Your task to perform on an android device: remove spam from my inbox in the gmail app Image 0: 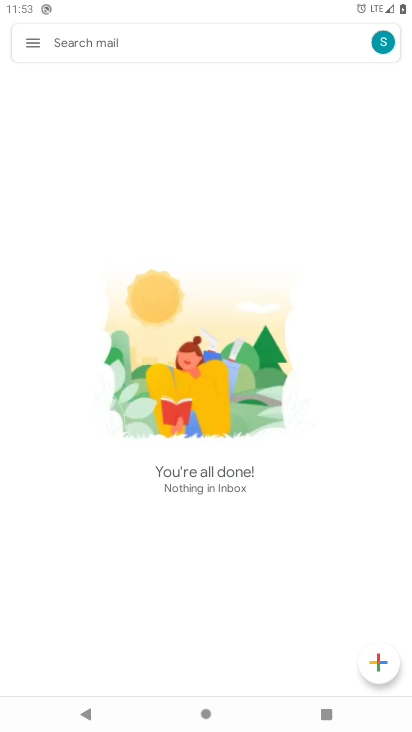
Step 0: click (32, 48)
Your task to perform on an android device: remove spam from my inbox in the gmail app Image 1: 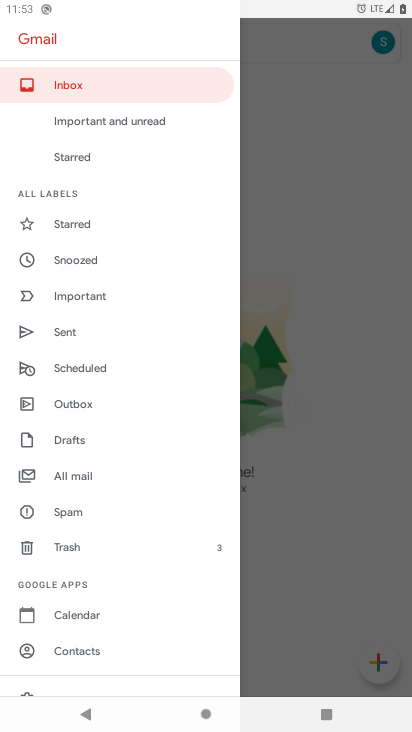
Step 1: click (76, 520)
Your task to perform on an android device: remove spam from my inbox in the gmail app Image 2: 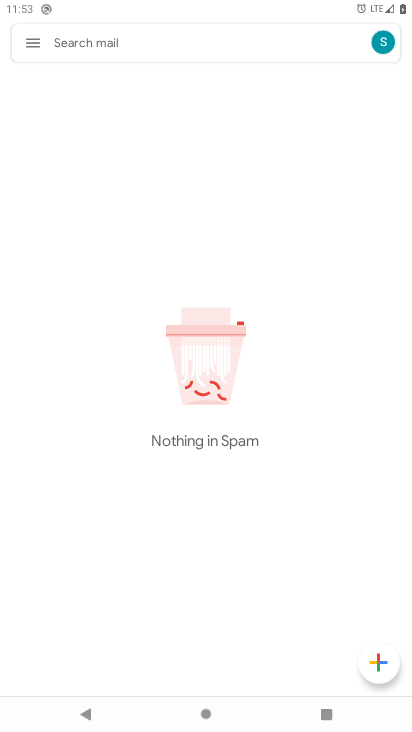
Step 2: click (11, 35)
Your task to perform on an android device: remove spam from my inbox in the gmail app Image 3: 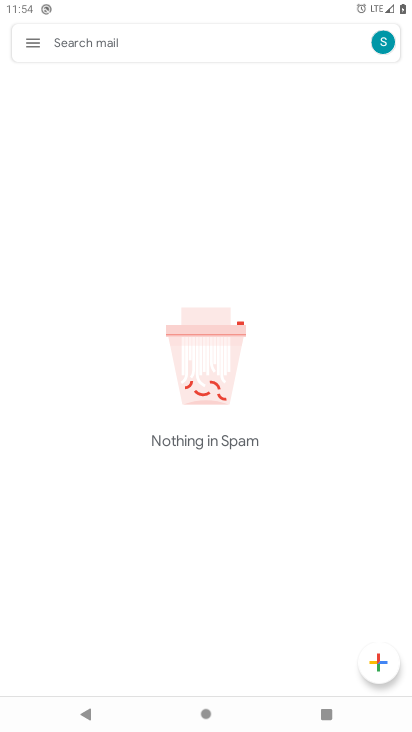
Step 3: click (30, 54)
Your task to perform on an android device: remove spam from my inbox in the gmail app Image 4: 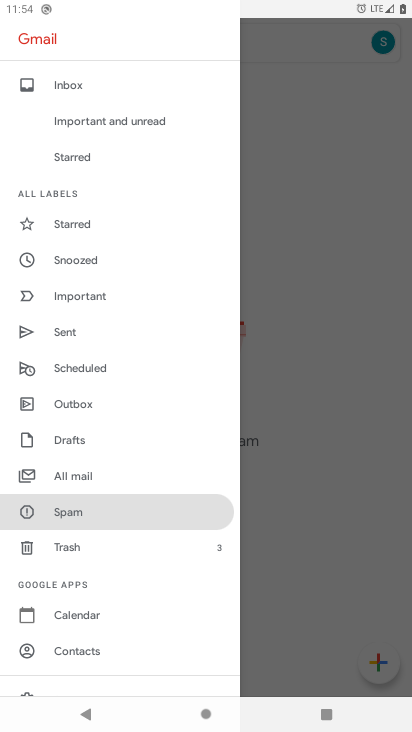
Step 4: click (93, 500)
Your task to perform on an android device: remove spam from my inbox in the gmail app Image 5: 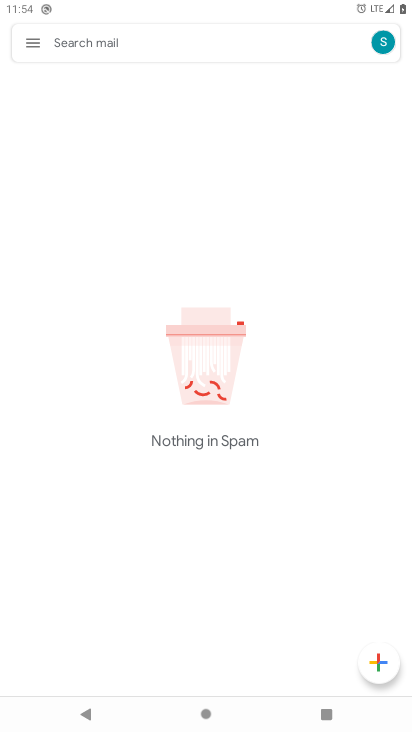
Step 5: task complete